Your task to perform on an android device: Open Maps and search for coffee Image 0: 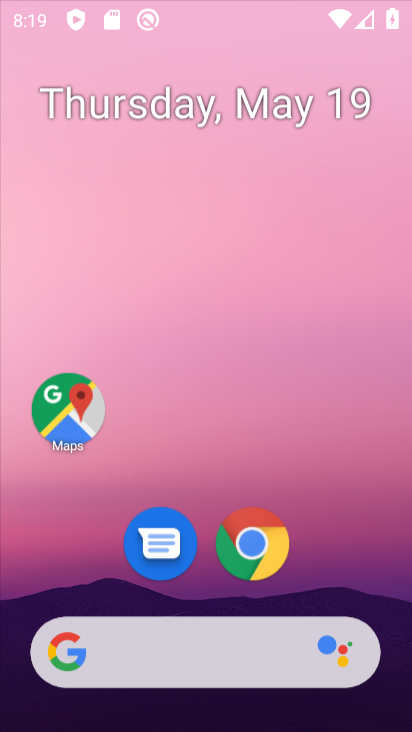
Step 0: click (302, 81)
Your task to perform on an android device: Open Maps and search for coffee Image 1: 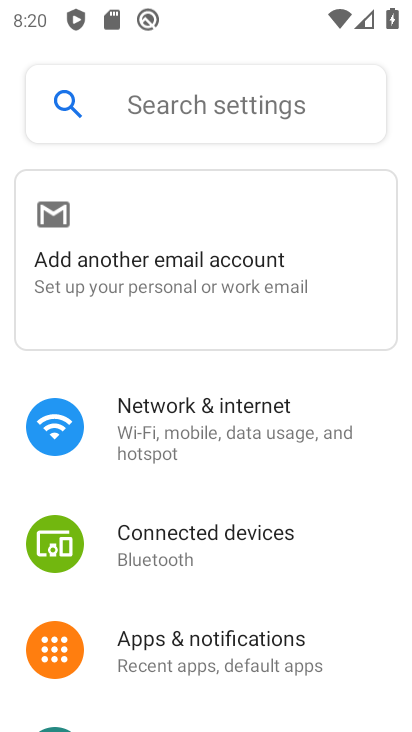
Step 1: press home button
Your task to perform on an android device: Open Maps and search for coffee Image 2: 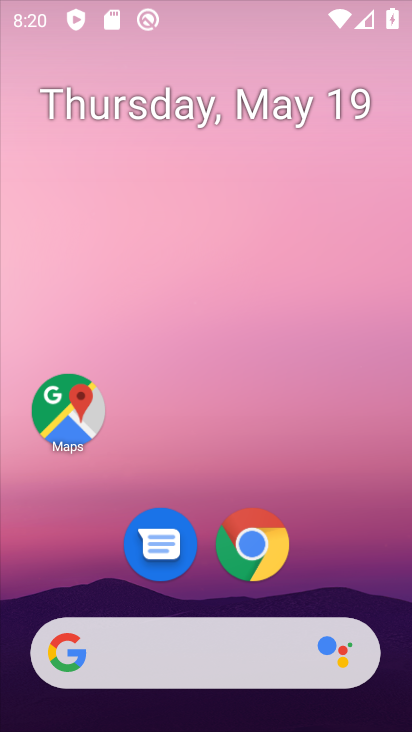
Step 2: drag from (397, 647) to (237, 29)
Your task to perform on an android device: Open Maps and search for coffee Image 3: 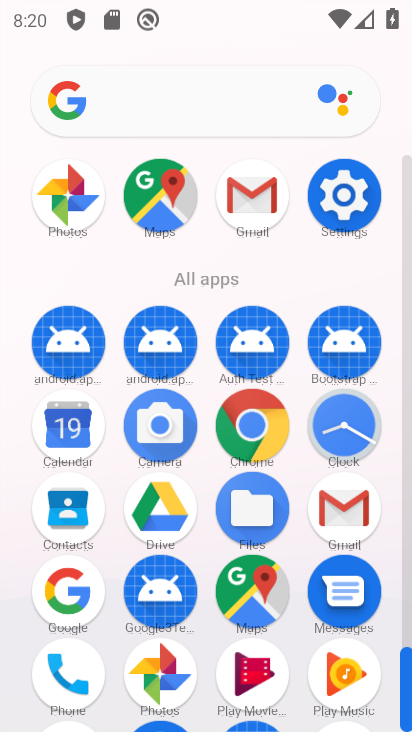
Step 3: click (158, 195)
Your task to perform on an android device: Open Maps and search for coffee Image 4: 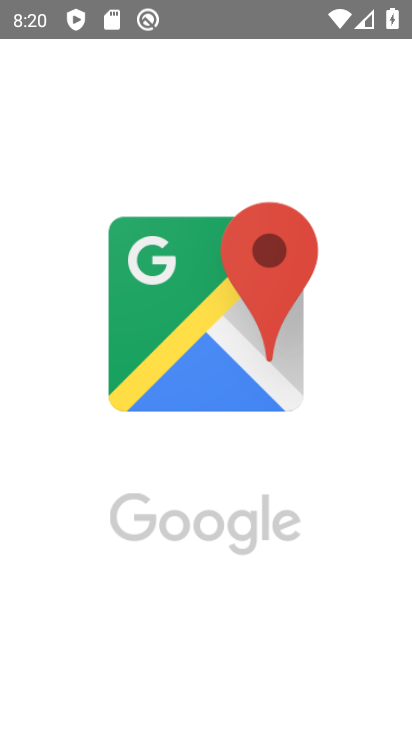
Step 4: task complete